Your task to perform on an android device: turn on bluetooth scan Image 0: 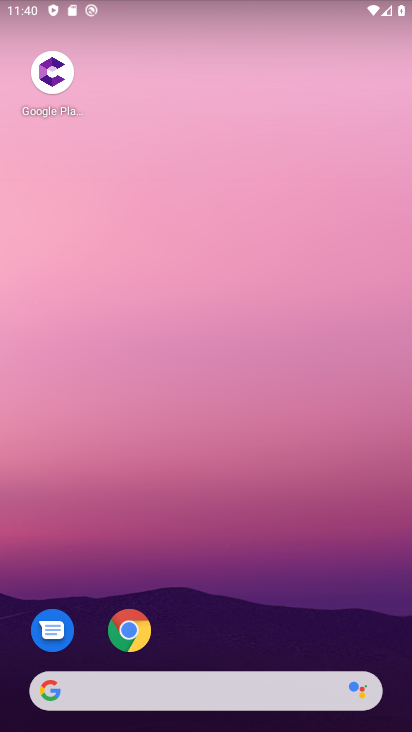
Step 0: drag from (200, 728) to (198, 234)
Your task to perform on an android device: turn on bluetooth scan Image 1: 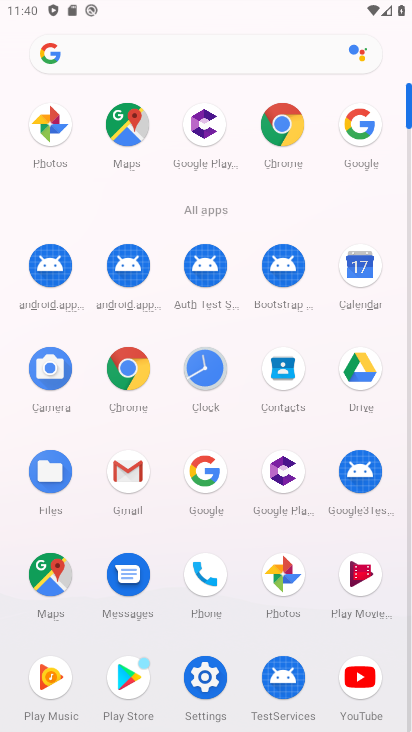
Step 1: click (201, 672)
Your task to perform on an android device: turn on bluetooth scan Image 2: 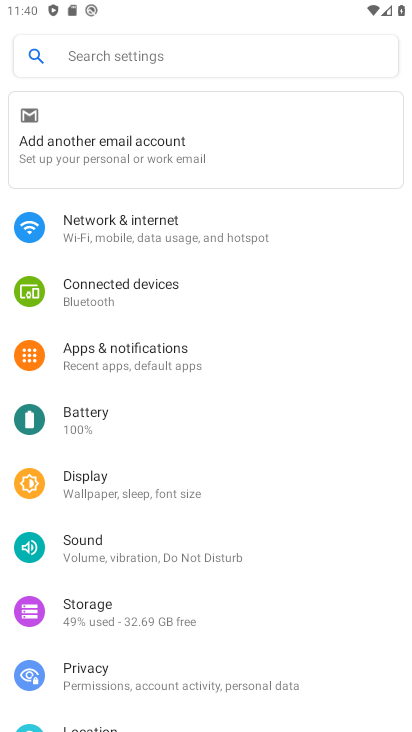
Step 2: drag from (186, 710) to (192, 265)
Your task to perform on an android device: turn on bluetooth scan Image 3: 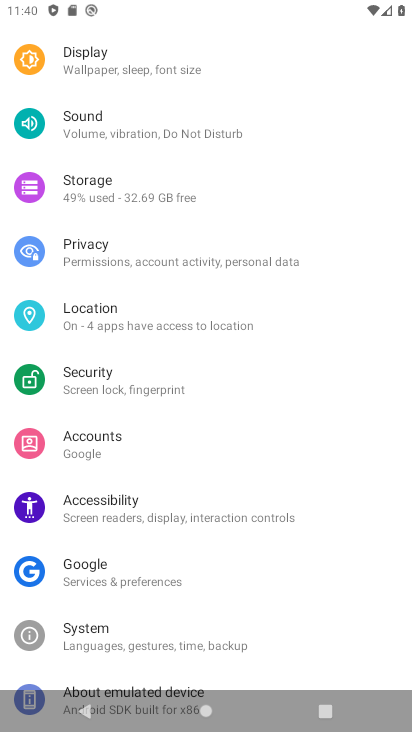
Step 3: click (99, 323)
Your task to perform on an android device: turn on bluetooth scan Image 4: 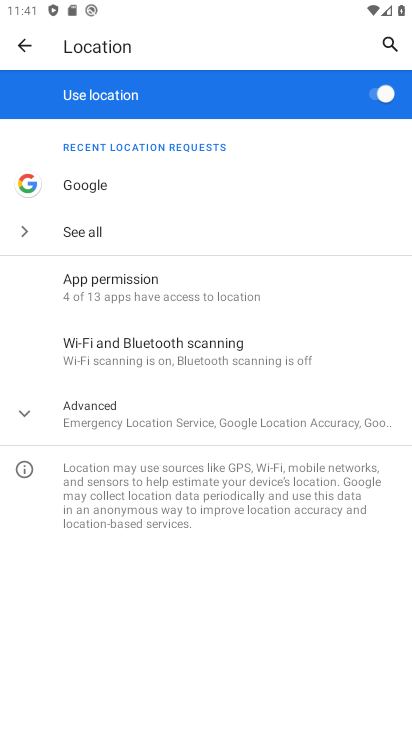
Step 4: click (132, 345)
Your task to perform on an android device: turn on bluetooth scan Image 5: 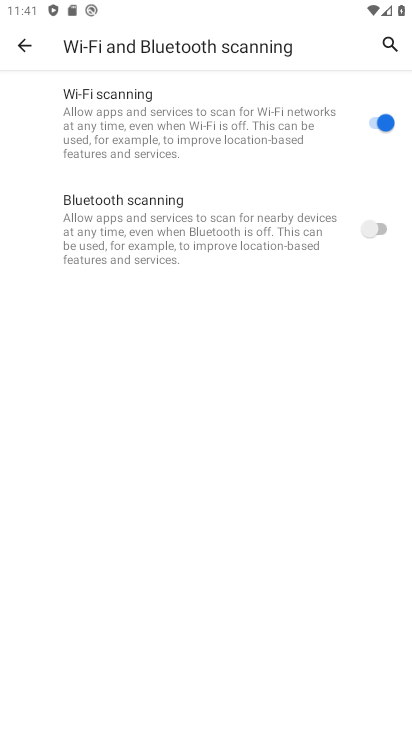
Step 5: click (382, 227)
Your task to perform on an android device: turn on bluetooth scan Image 6: 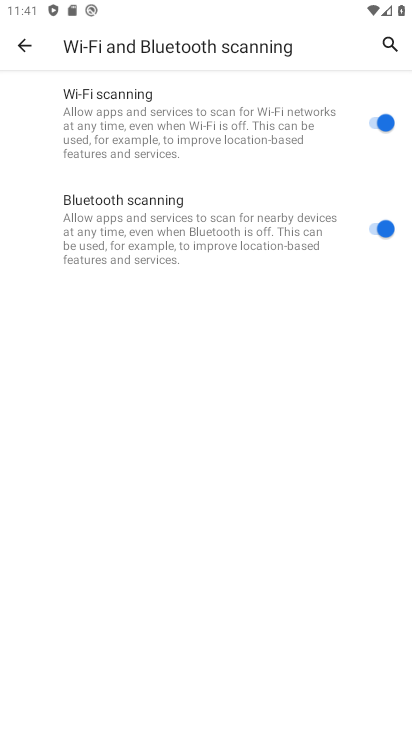
Step 6: task complete